Your task to perform on an android device: Open the phone app and click the voicemail tab. Image 0: 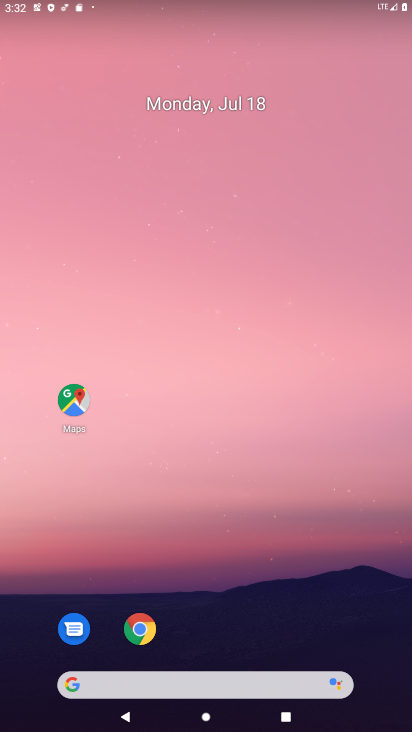
Step 0: drag from (227, 641) to (225, 97)
Your task to perform on an android device: Open the phone app and click the voicemail tab. Image 1: 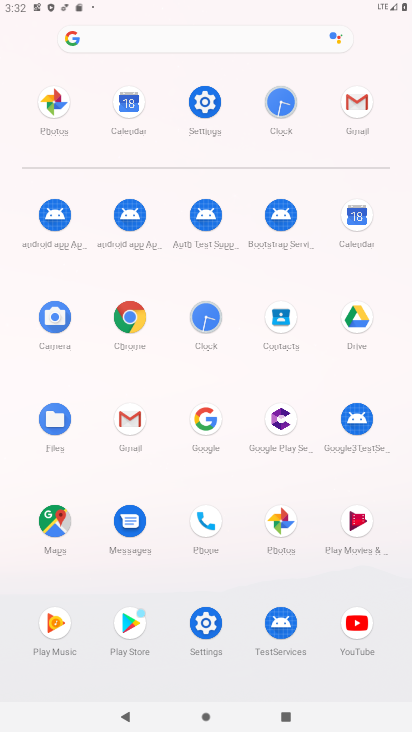
Step 1: click (208, 523)
Your task to perform on an android device: Open the phone app and click the voicemail tab. Image 2: 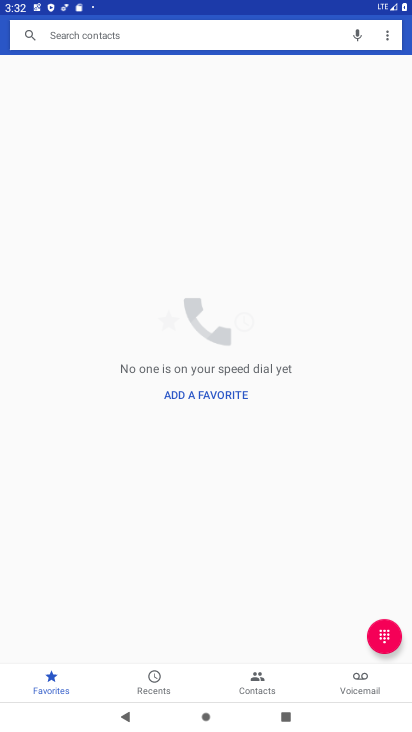
Step 2: click (374, 685)
Your task to perform on an android device: Open the phone app and click the voicemail tab. Image 3: 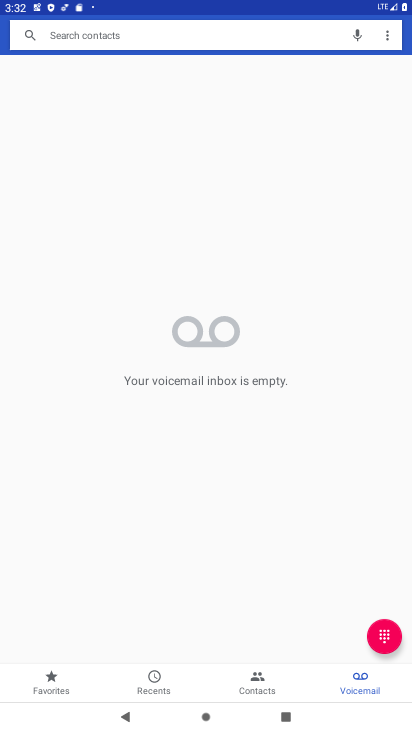
Step 3: task complete